Your task to perform on an android device: turn smart compose on in the gmail app Image 0: 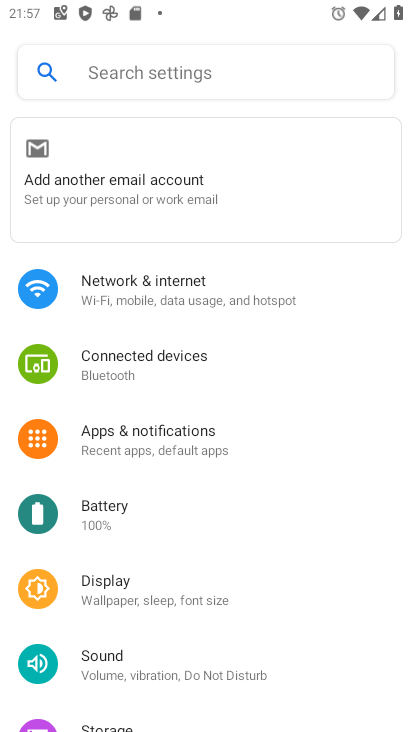
Step 0: press home button
Your task to perform on an android device: turn smart compose on in the gmail app Image 1: 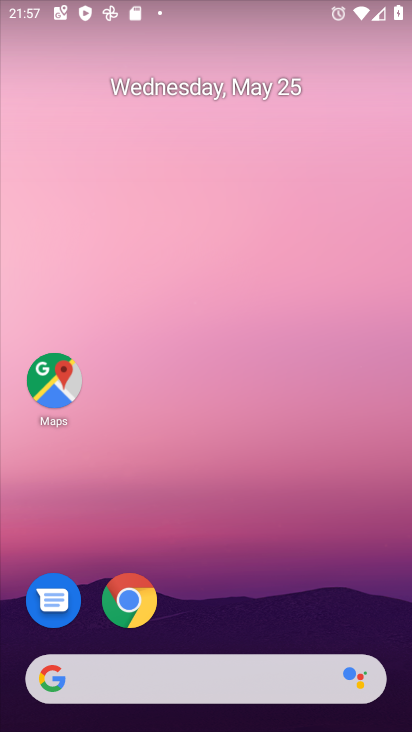
Step 1: drag from (366, 578) to (305, 73)
Your task to perform on an android device: turn smart compose on in the gmail app Image 2: 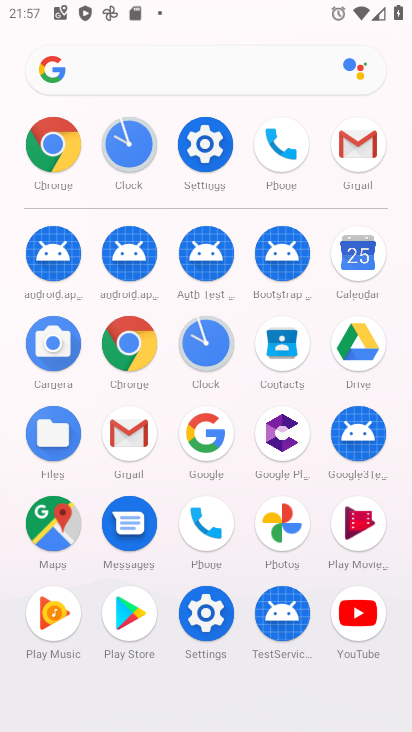
Step 2: click (125, 442)
Your task to perform on an android device: turn smart compose on in the gmail app Image 3: 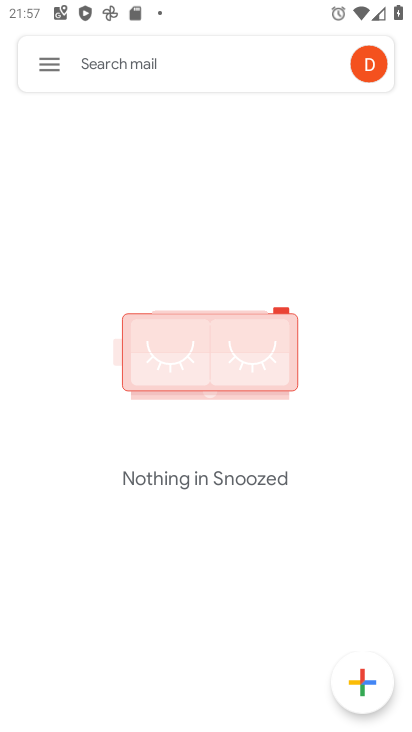
Step 3: click (24, 58)
Your task to perform on an android device: turn smart compose on in the gmail app Image 4: 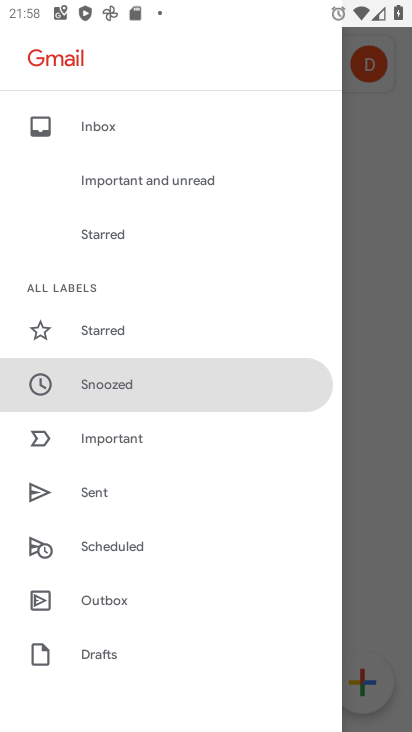
Step 4: drag from (204, 626) to (247, 215)
Your task to perform on an android device: turn smart compose on in the gmail app Image 5: 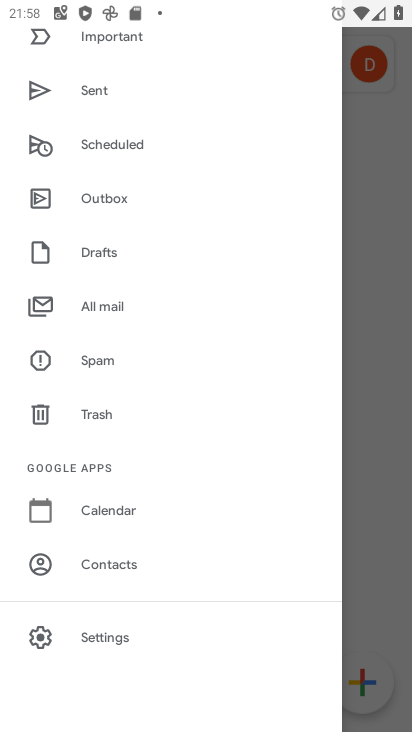
Step 5: click (135, 628)
Your task to perform on an android device: turn smart compose on in the gmail app Image 6: 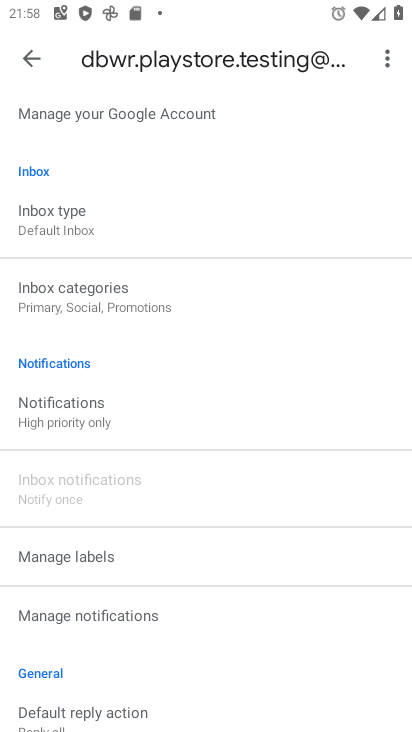
Step 6: task complete